Your task to perform on an android device: turn on priority inbox in the gmail app Image 0: 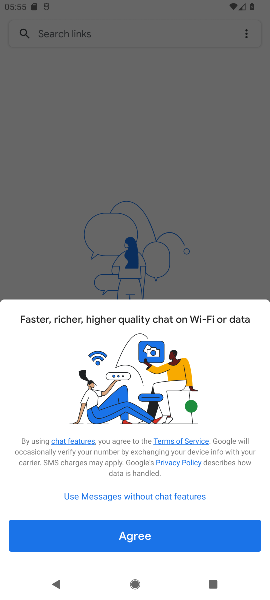
Step 0: press home button
Your task to perform on an android device: turn on priority inbox in the gmail app Image 1: 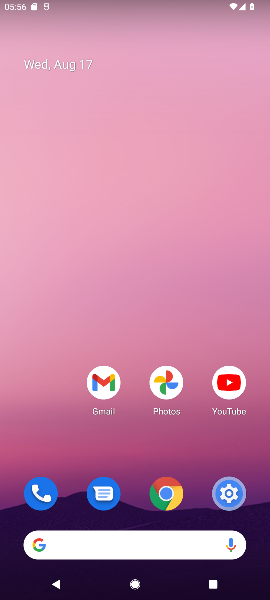
Step 1: click (105, 386)
Your task to perform on an android device: turn on priority inbox in the gmail app Image 2: 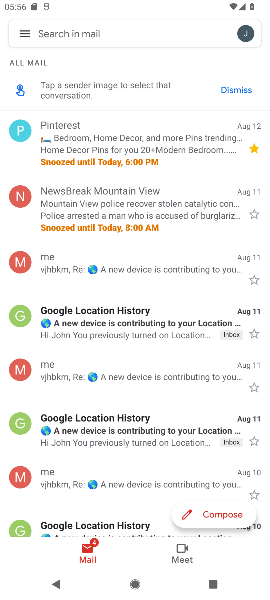
Step 2: click (31, 33)
Your task to perform on an android device: turn on priority inbox in the gmail app Image 3: 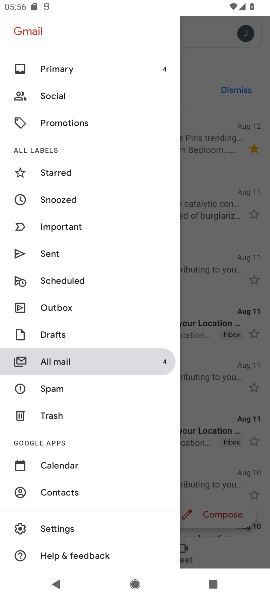
Step 3: click (50, 533)
Your task to perform on an android device: turn on priority inbox in the gmail app Image 4: 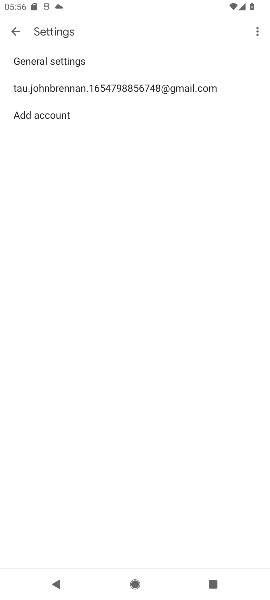
Step 4: click (135, 92)
Your task to perform on an android device: turn on priority inbox in the gmail app Image 5: 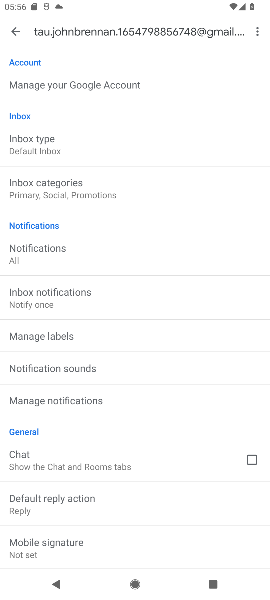
Step 5: click (43, 142)
Your task to perform on an android device: turn on priority inbox in the gmail app Image 6: 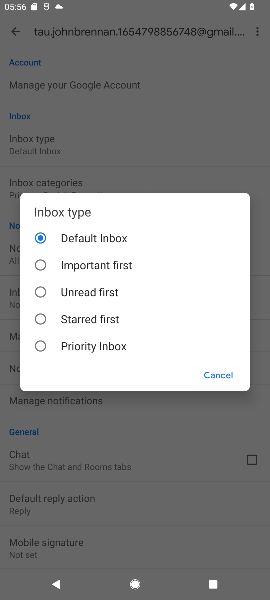
Step 6: click (38, 341)
Your task to perform on an android device: turn on priority inbox in the gmail app Image 7: 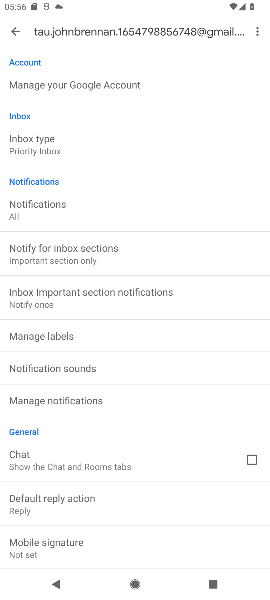
Step 7: task complete